Your task to perform on an android device: turn on translation in the chrome app Image 0: 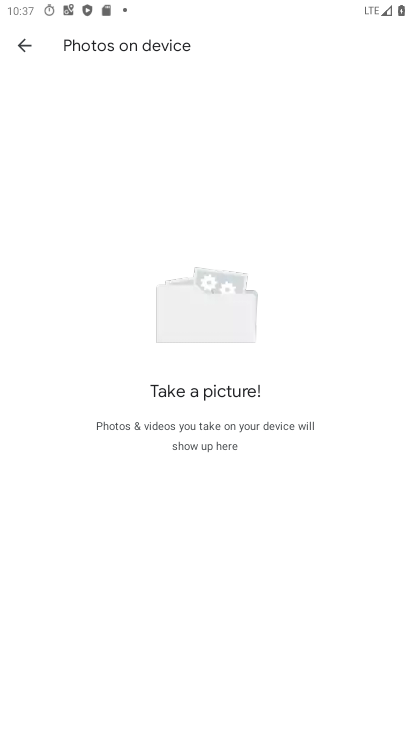
Step 0: press home button
Your task to perform on an android device: turn on translation in the chrome app Image 1: 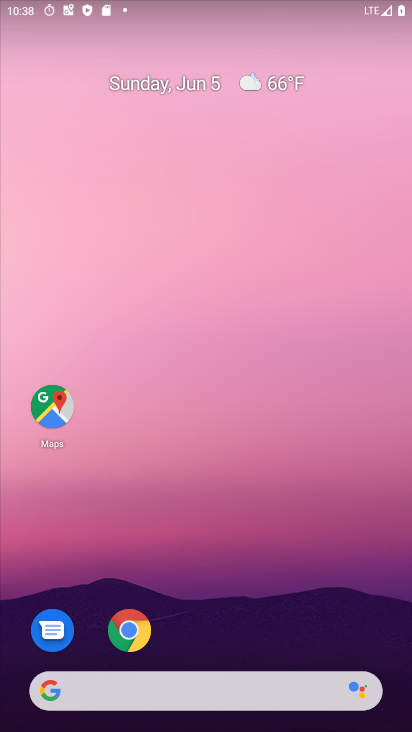
Step 1: click (125, 629)
Your task to perform on an android device: turn on translation in the chrome app Image 2: 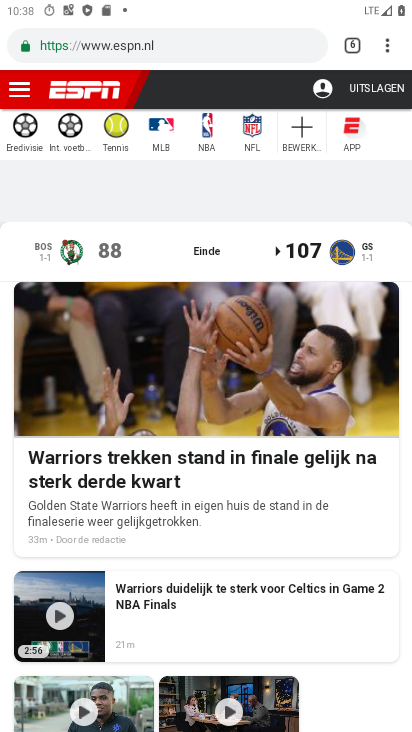
Step 2: click (388, 50)
Your task to perform on an android device: turn on translation in the chrome app Image 3: 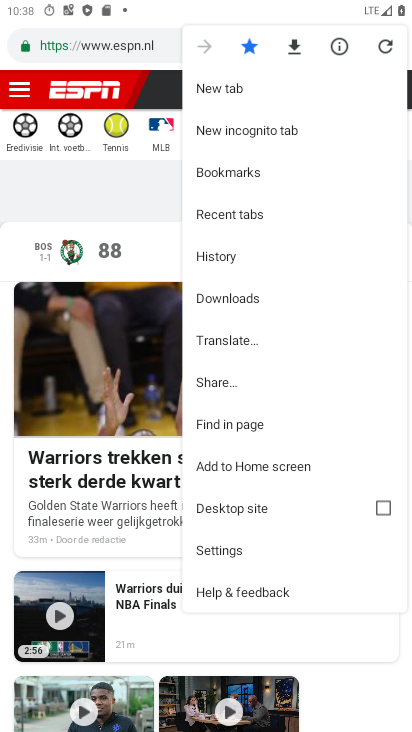
Step 3: click (227, 547)
Your task to perform on an android device: turn on translation in the chrome app Image 4: 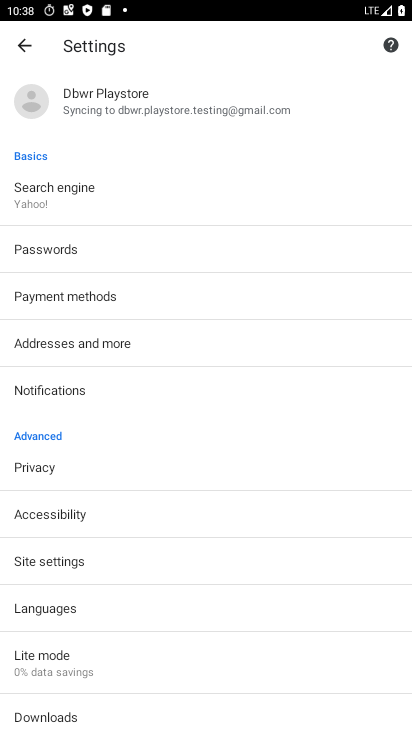
Step 4: click (63, 608)
Your task to perform on an android device: turn on translation in the chrome app Image 5: 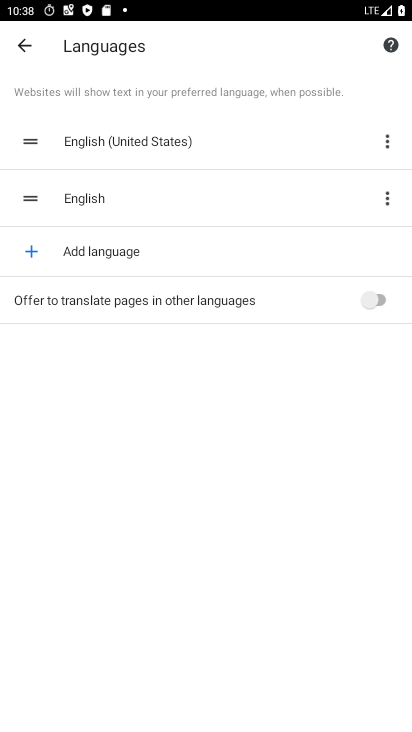
Step 5: click (382, 297)
Your task to perform on an android device: turn on translation in the chrome app Image 6: 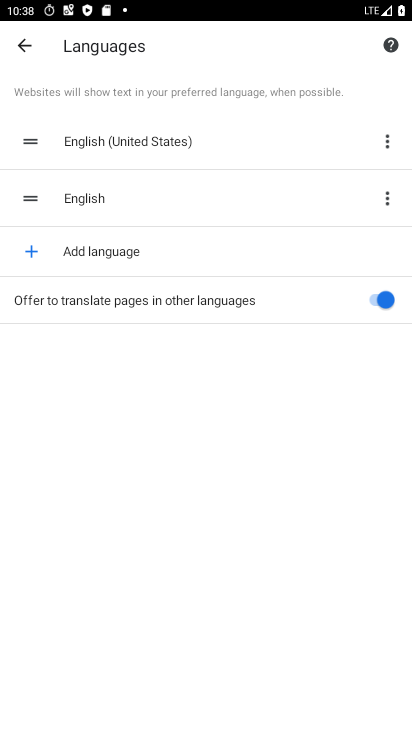
Step 6: task complete